Your task to perform on an android device: Find the nearest electronics store that's open tomorrow Image 0: 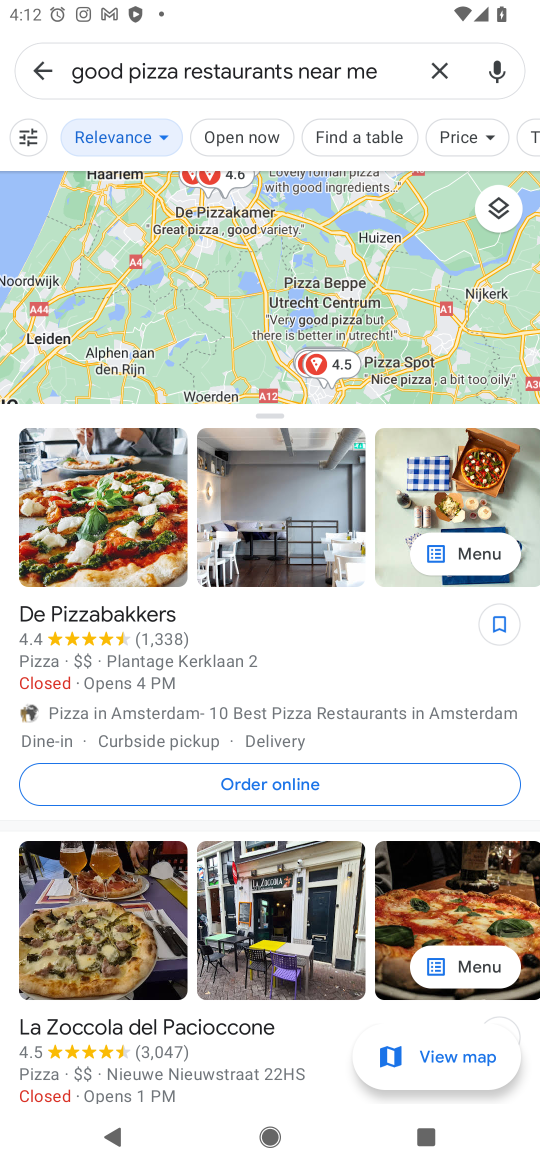
Step 0: press home button
Your task to perform on an android device: Find the nearest electronics store that's open tomorrow Image 1: 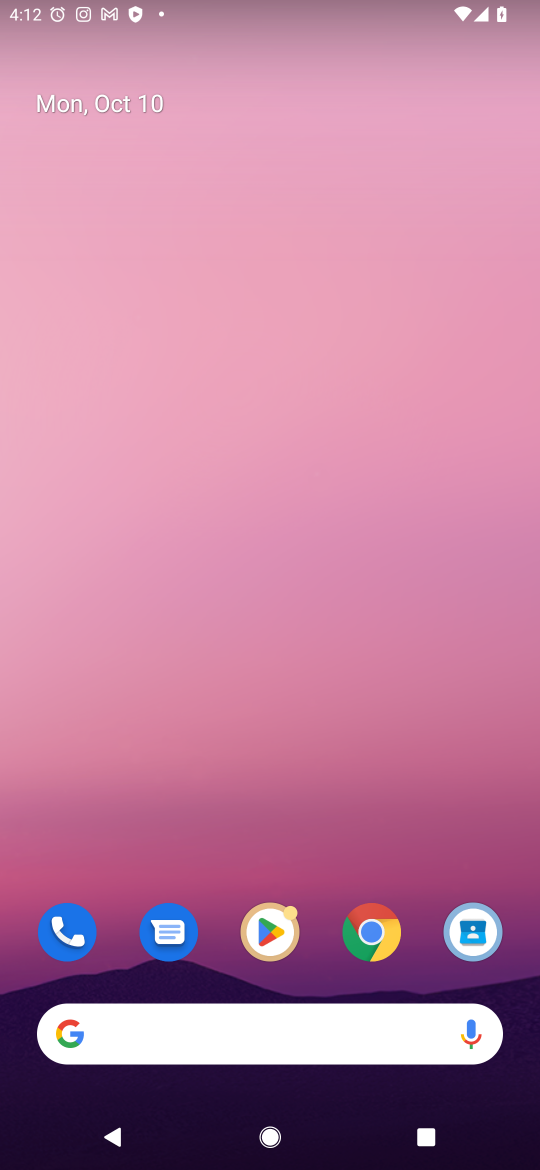
Step 1: click (269, 1029)
Your task to perform on an android device: Find the nearest electronics store that's open tomorrow Image 2: 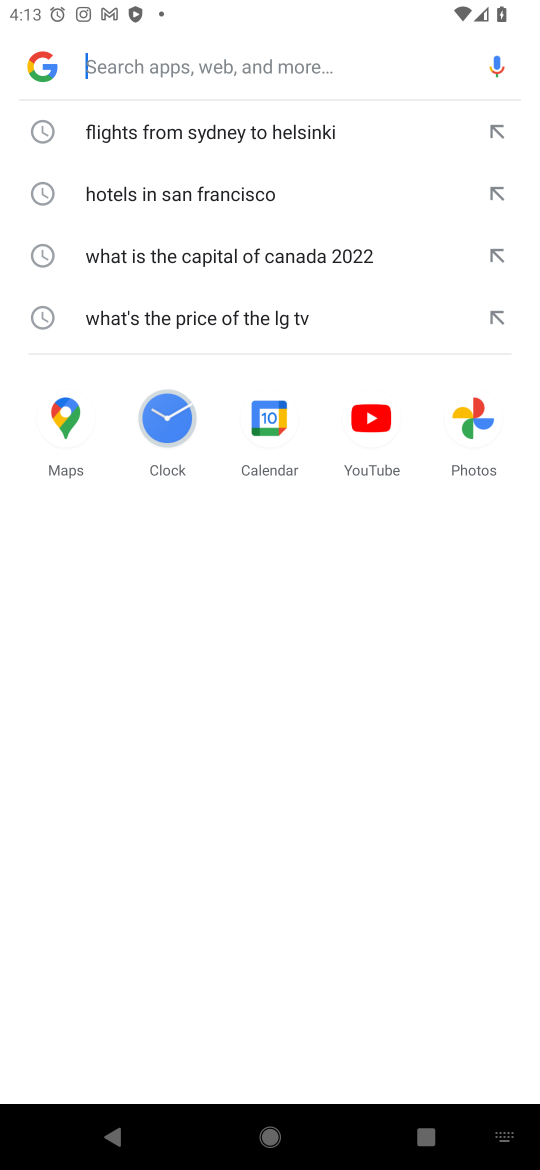
Step 2: type "Find the nearest electronics store that's open tomorrow"
Your task to perform on an android device: Find the nearest electronics store that's open tomorrow Image 3: 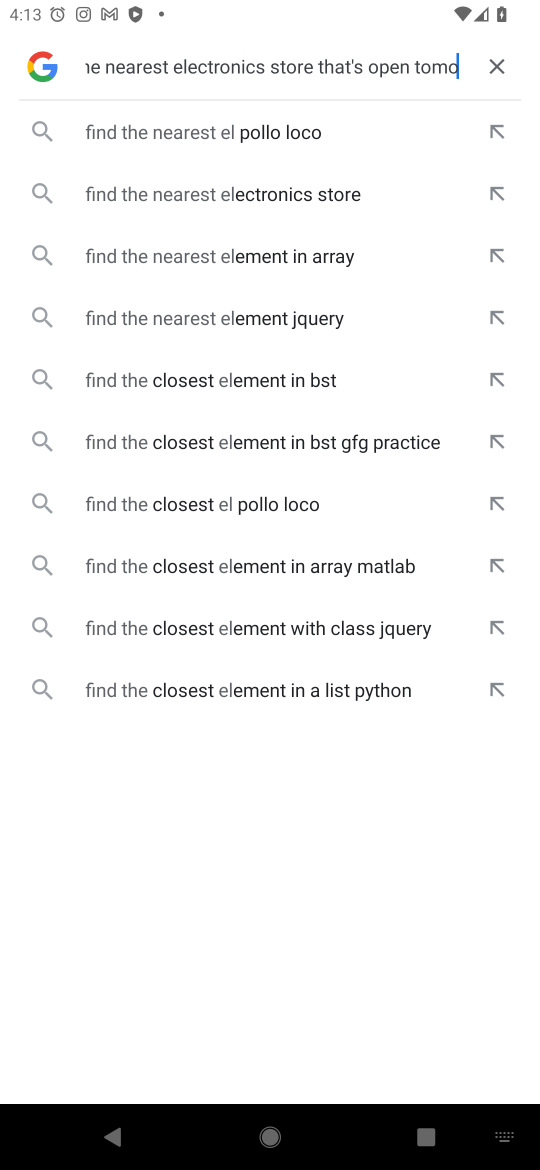
Step 3: press enter
Your task to perform on an android device: Find the nearest electronics store that's open tomorrow Image 4: 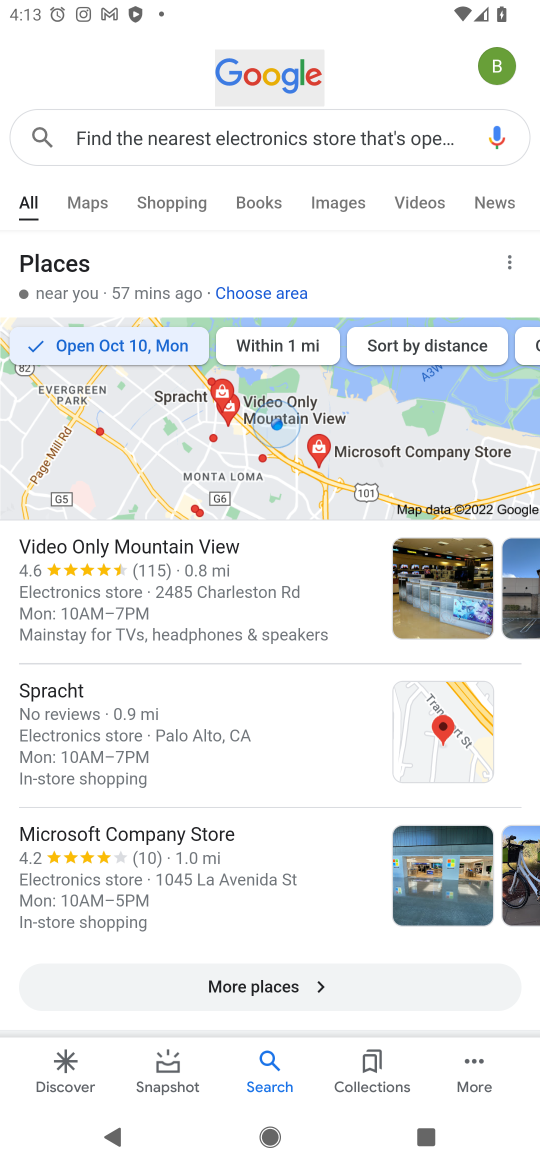
Step 4: task complete